Your task to perform on an android device: Open Youtube and go to "Your channel" Image 0: 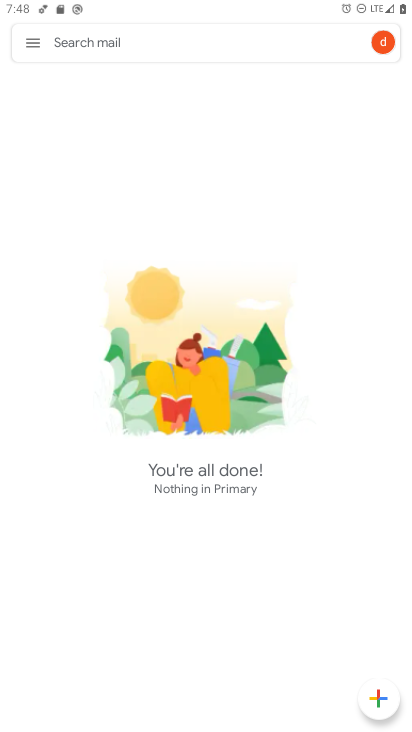
Step 0: press home button
Your task to perform on an android device: Open Youtube and go to "Your channel" Image 1: 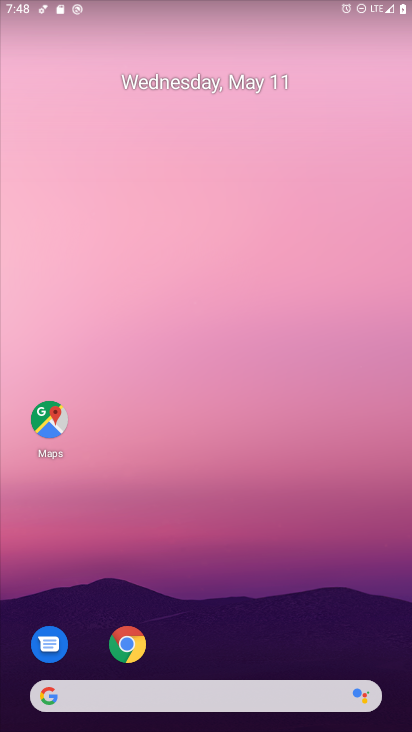
Step 1: drag from (239, 611) to (150, 146)
Your task to perform on an android device: Open Youtube and go to "Your channel" Image 2: 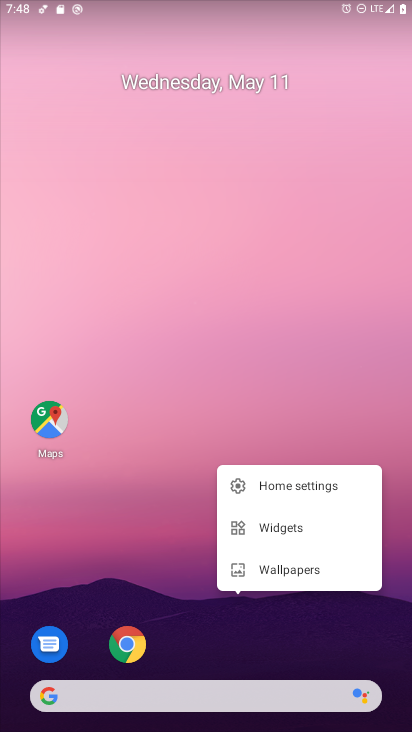
Step 2: click (124, 522)
Your task to perform on an android device: Open Youtube and go to "Your channel" Image 3: 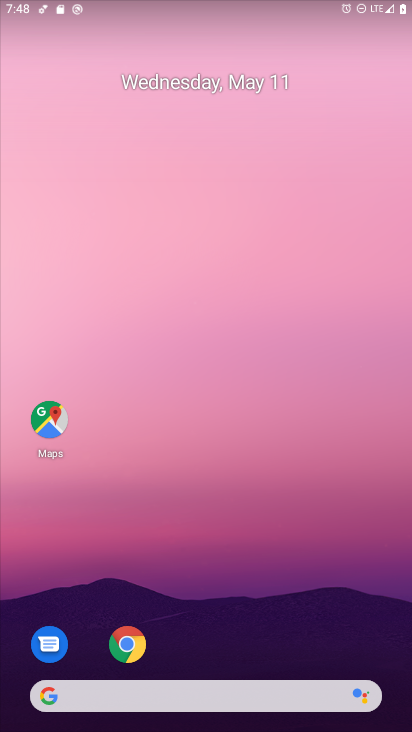
Step 3: drag from (253, 596) to (199, 145)
Your task to perform on an android device: Open Youtube and go to "Your channel" Image 4: 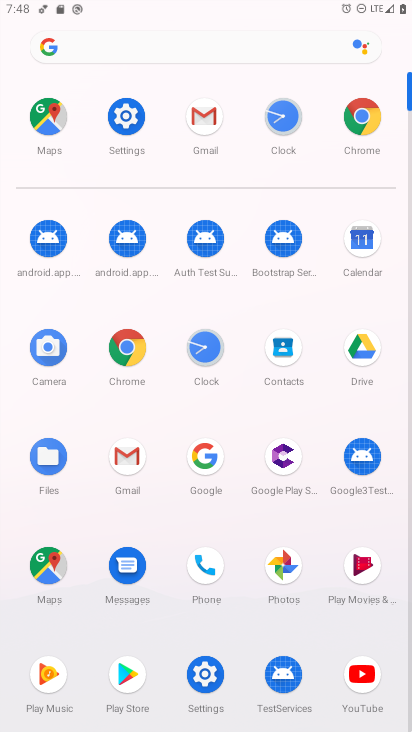
Step 4: click (354, 670)
Your task to perform on an android device: Open Youtube and go to "Your channel" Image 5: 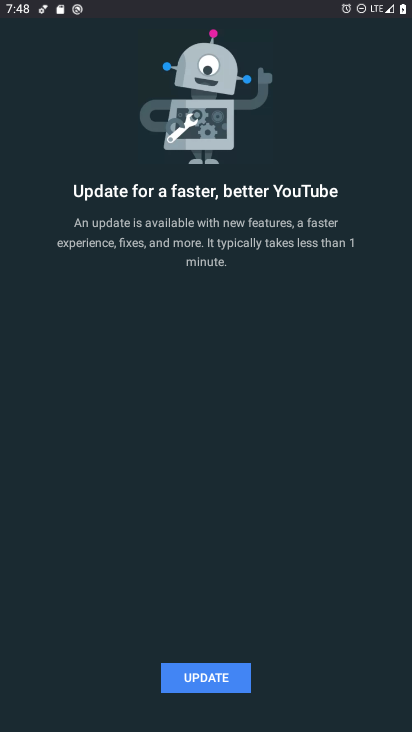
Step 5: click (203, 674)
Your task to perform on an android device: Open Youtube and go to "Your channel" Image 6: 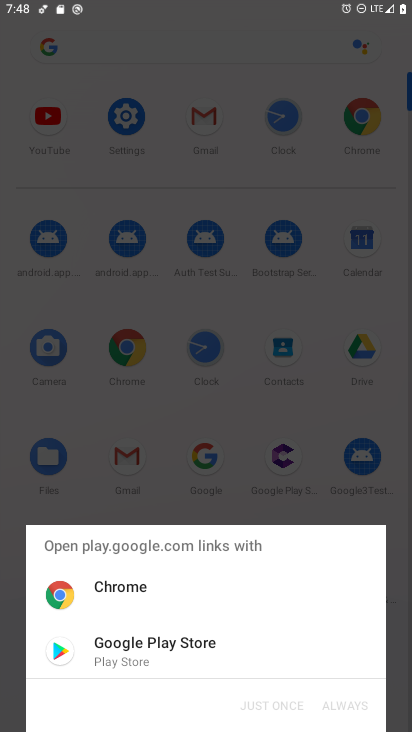
Step 6: click (118, 653)
Your task to perform on an android device: Open Youtube and go to "Your channel" Image 7: 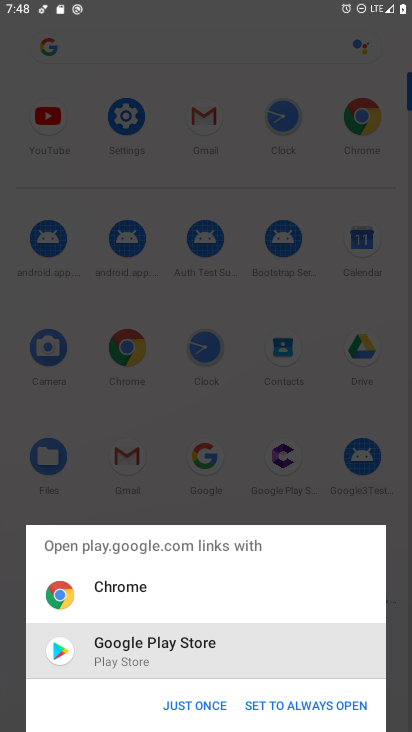
Step 7: click (192, 704)
Your task to perform on an android device: Open Youtube and go to "Your channel" Image 8: 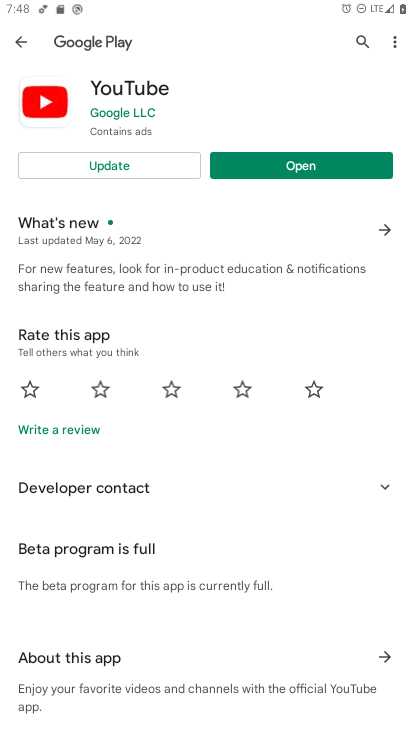
Step 8: click (134, 158)
Your task to perform on an android device: Open Youtube and go to "Your channel" Image 9: 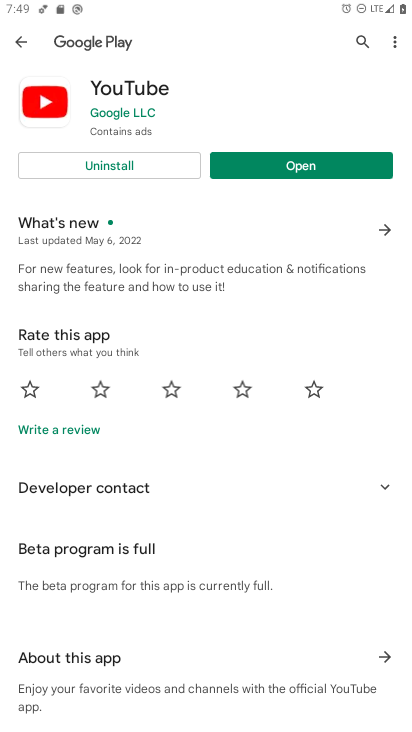
Step 9: click (269, 161)
Your task to perform on an android device: Open Youtube and go to "Your channel" Image 10: 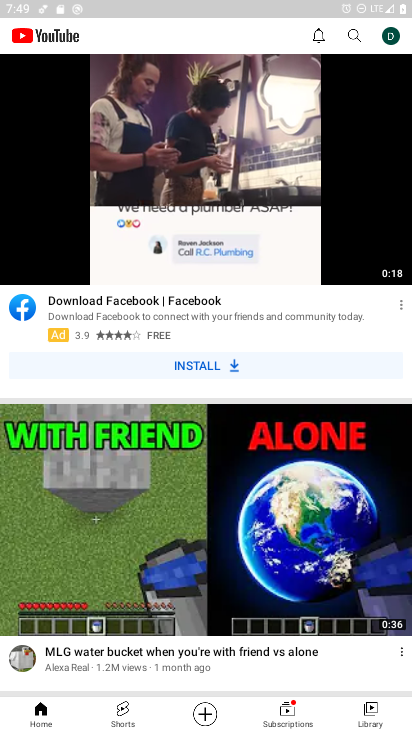
Step 10: click (388, 32)
Your task to perform on an android device: Open Youtube and go to "Your channel" Image 11: 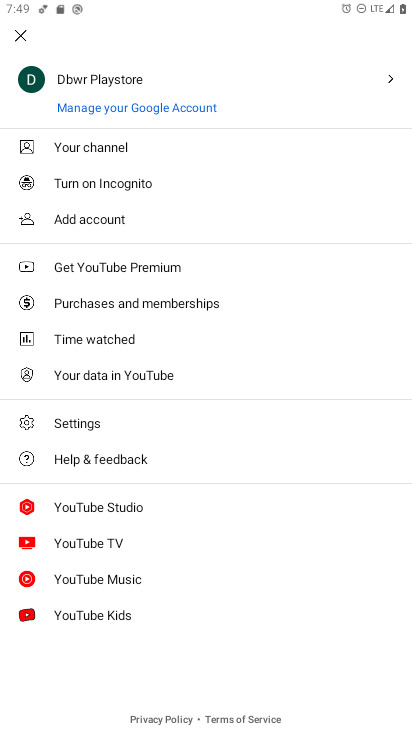
Step 11: click (82, 147)
Your task to perform on an android device: Open Youtube and go to "Your channel" Image 12: 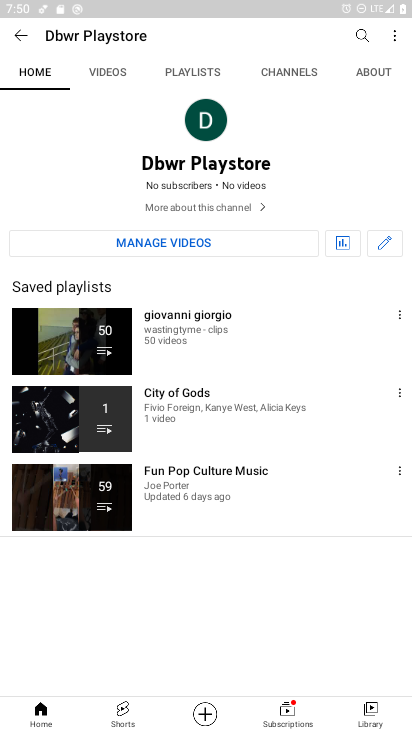
Step 12: task complete